Your task to perform on an android device: Open my contact list Image 0: 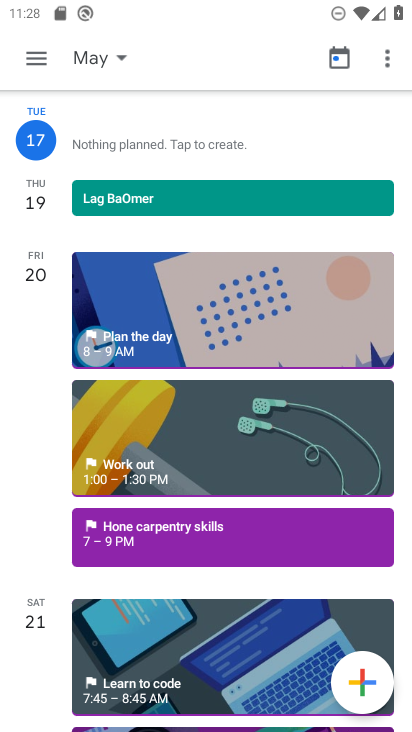
Step 0: press back button
Your task to perform on an android device: Open my contact list Image 1: 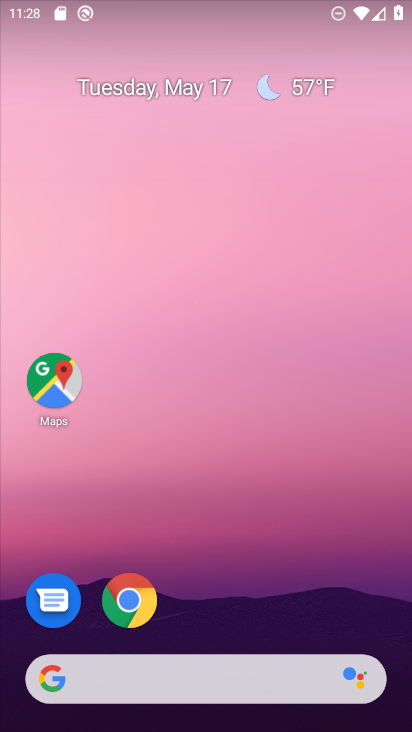
Step 1: drag from (254, 690) to (109, 52)
Your task to perform on an android device: Open my contact list Image 2: 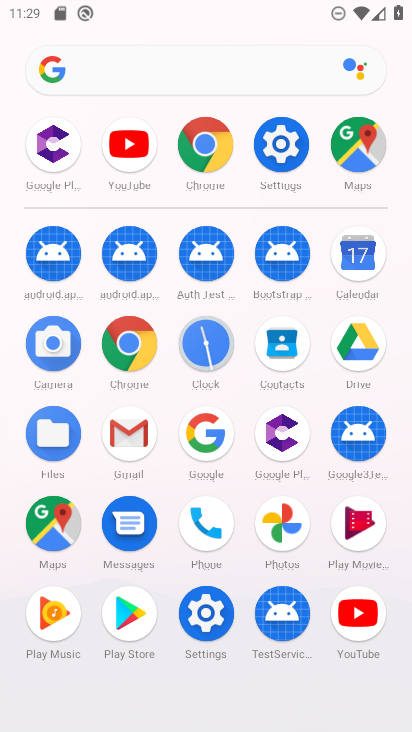
Step 2: click (291, 332)
Your task to perform on an android device: Open my contact list Image 3: 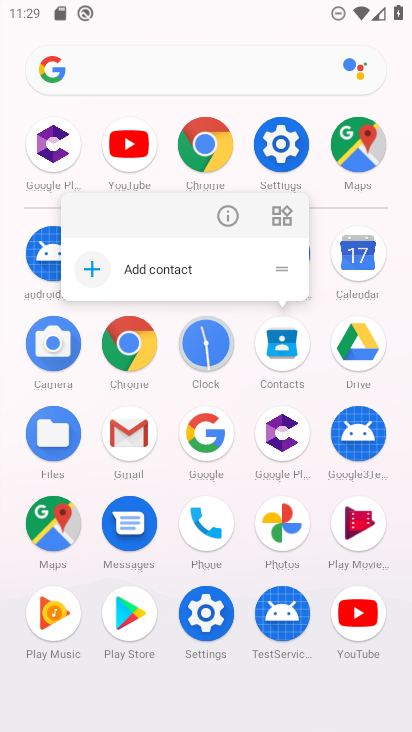
Step 3: click (273, 338)
Your task to perform on an android device: Open my contact list Image 4: 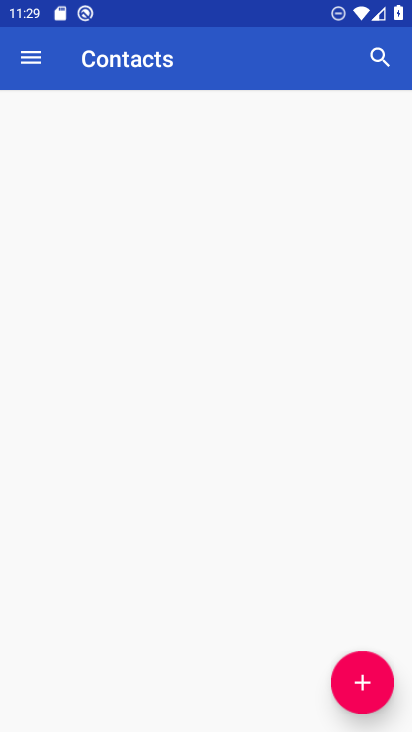
Step 4: click (278, 342)
Your task to perform on an android device: Open my contact list Image 5: 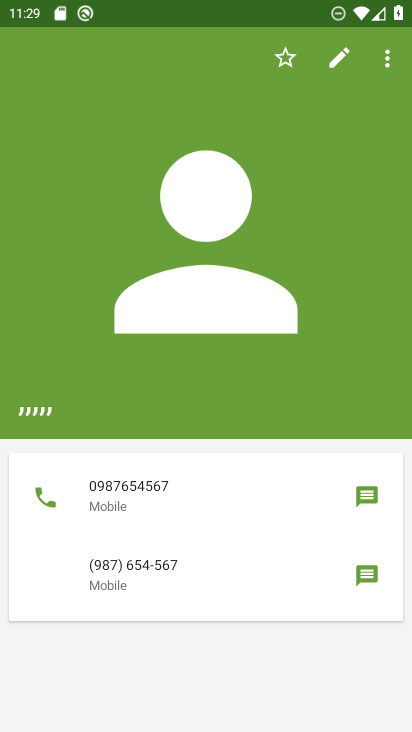
Step 5: task complete